Your task to perform on an android device: Show me productivity apps on the Play Store Image 0: 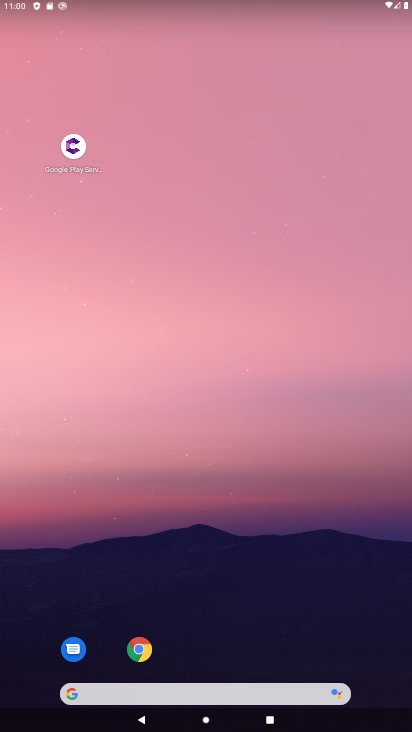
Step 0: drag from (209, 670) to (254, 24)
Your task to perform on an android device: Show me productivity apps on the Play Store Image 1: 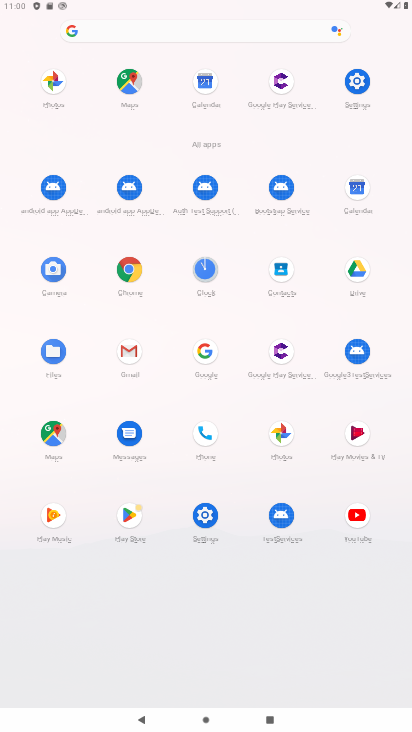
Step 1: click (126, 537)
Your task to perform on an android device: Show me productivity apps on the Play Store Image 2: 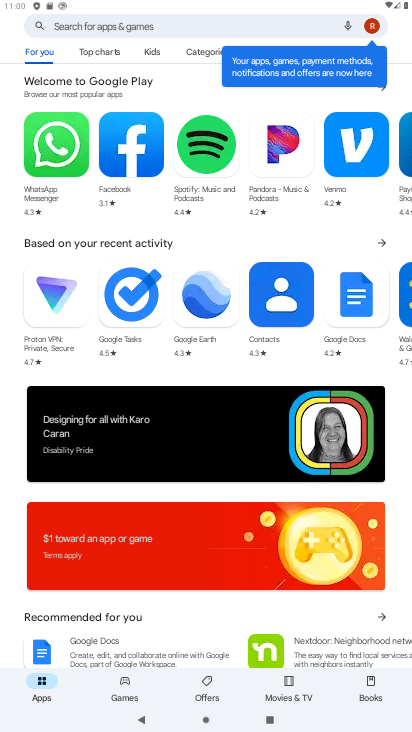
Step 2: click (196, 42)
Your task to perform on an android device: Show me productivity apps on the Play Store Image 3: 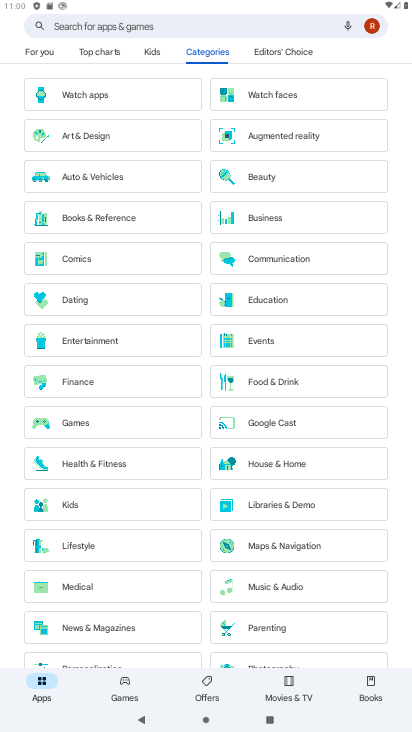
Step 3: drag from (142, 559) to (96, 336)
Your task to perform on an android device: Show me productivity apps on the Play Store Image 4: 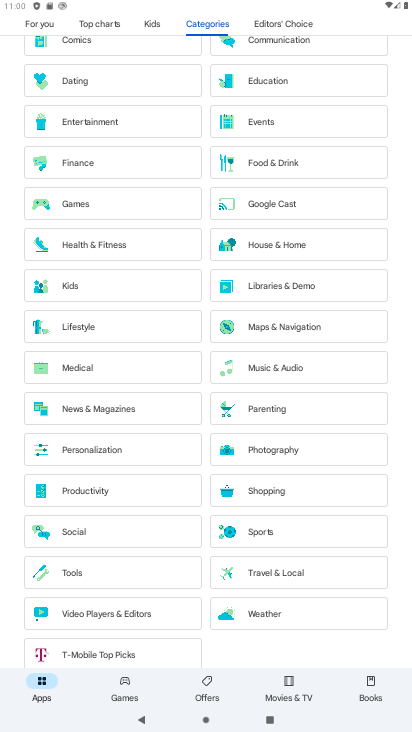
Step 4: click (95, 483)
Your task to perform on an android device: Show me productivity apps on the Play Store Image 5: 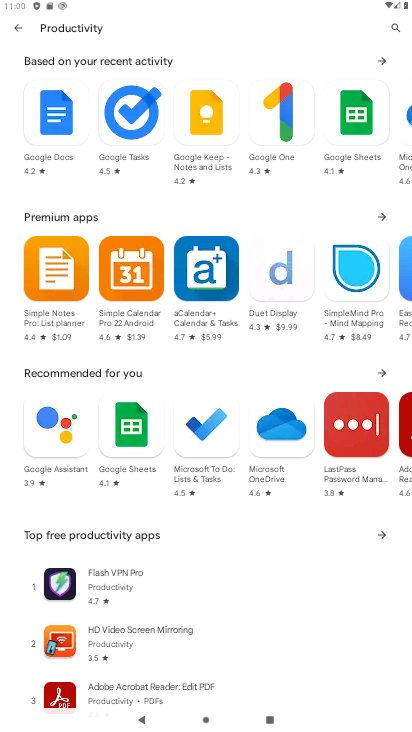
Step 5: task complete